Your task to perform on an android device: turn off location history Image 0: 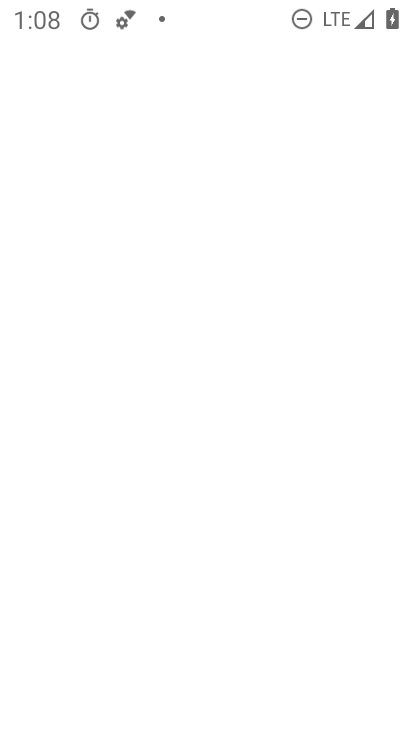
Step 0: drag from (332, 572) to (406, 467)
Your task to perform on an android device: turn off location history Image 1: 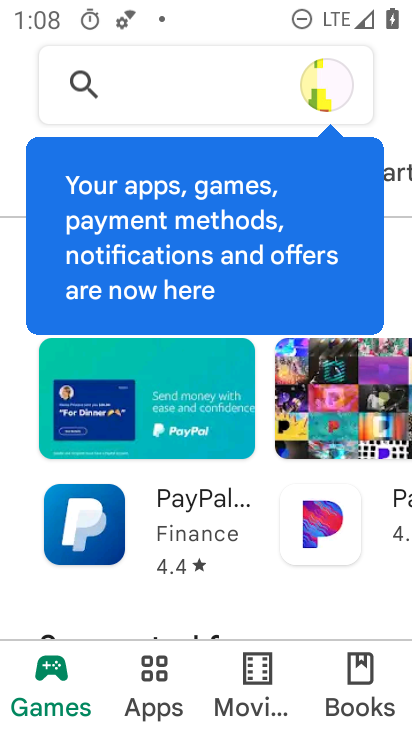
Step 1: press home button
Your task to perform on an android device: turn off location history Image 2: 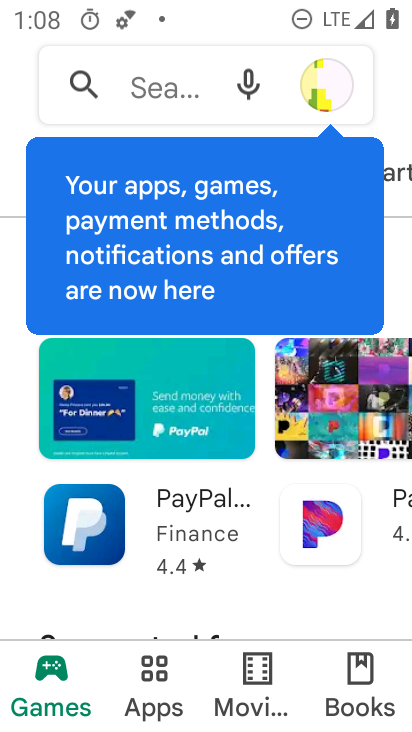
Step 2: drag from (406, 467) to (405, 506)
Your task to perform on an android device: turn off location history Image 3: 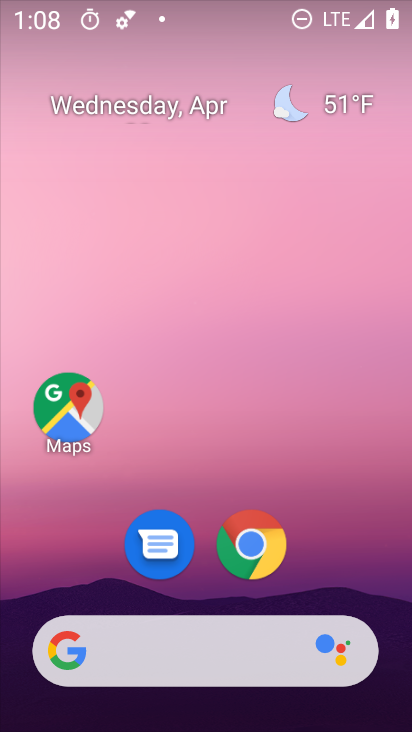
Step 3: drag from (323, 557) to (322, 114)
Your task to perform on an android device: turn off location history Image 4: 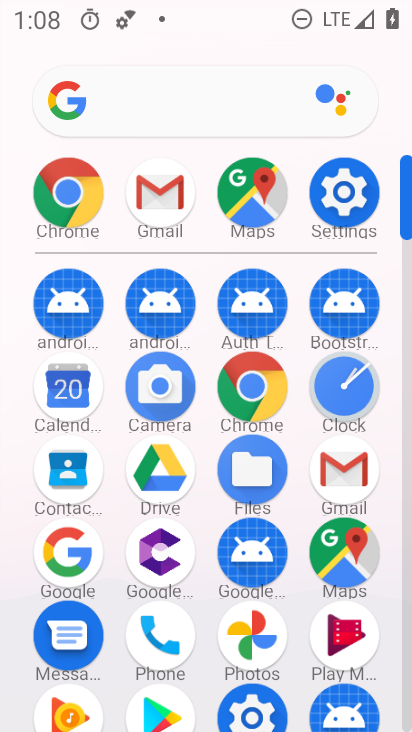
Step 4: click (330, 201)
Your task to perform on an android device: turn off location history Image 5: 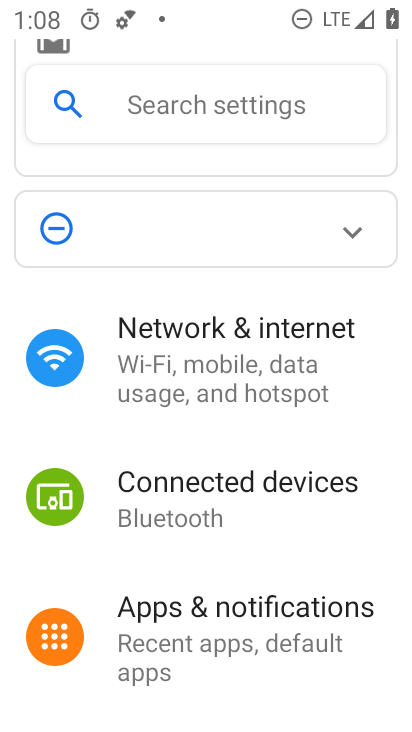
Step 5: drag from (372, 652) to (382, 500)
Your task to perform on an android device: turn off location history Image 6: 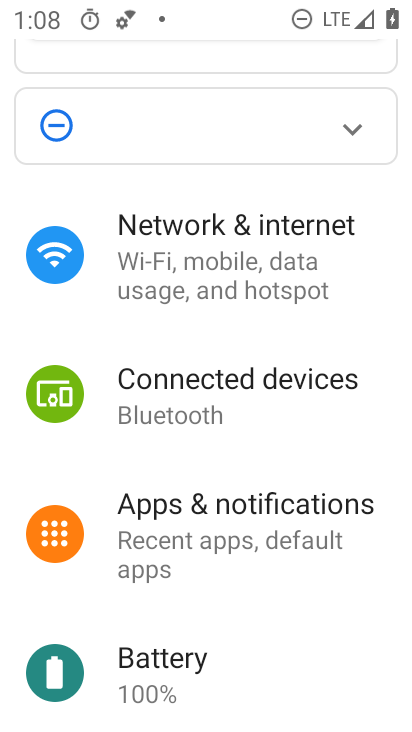
Step 6: drag from (350, 630) to (363, 426)
Your task to perform on an android device: turn off location history Image 7: 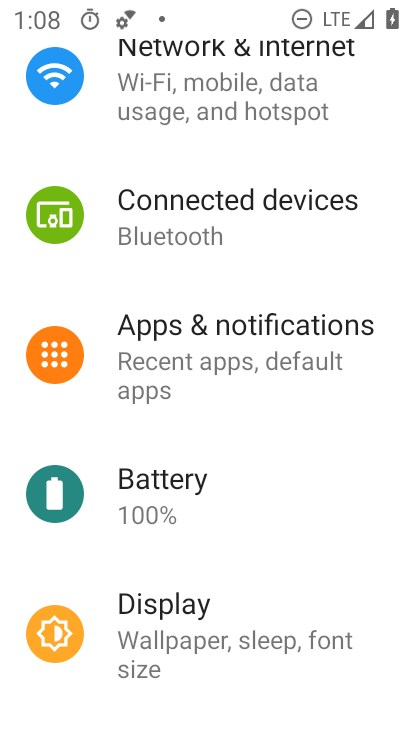
Step 7: drag from (375, 590) to (378, 466)
Your task to perform on an android device: turn off location history Image 8: 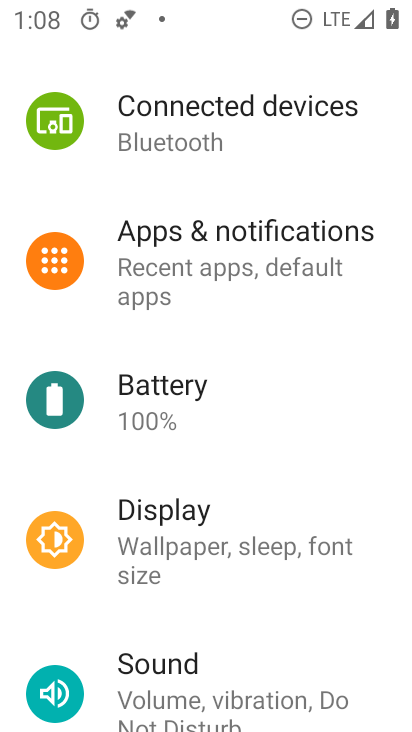
Step 8: drag from (349, 615) to (362, 479)
Your task to perform on an android device: turn off location history Image 9: 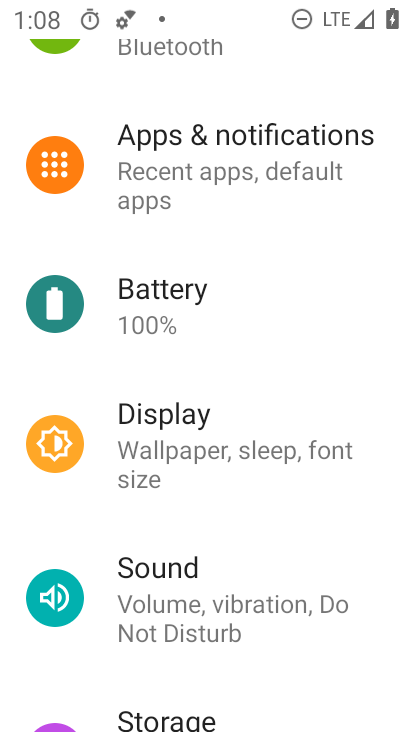
Step 9: drag from (343, 669) to (342, 515)
Your task to perform on an android device: turn off location history Image 10: 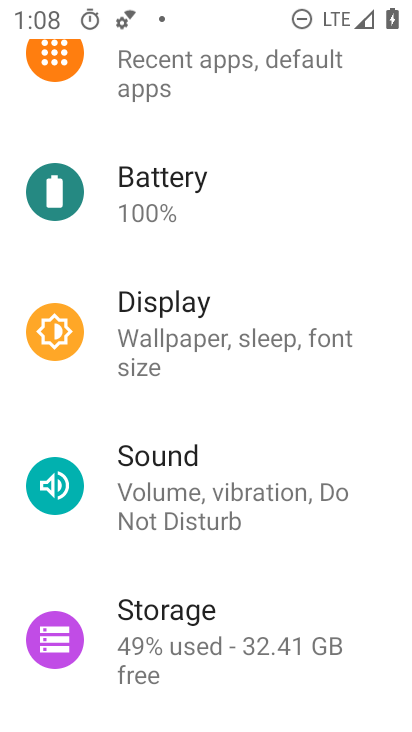
Step 10: drag from (363, 682) to (367, 540)
Your task to perform on an android device: turn off location history Image 11: 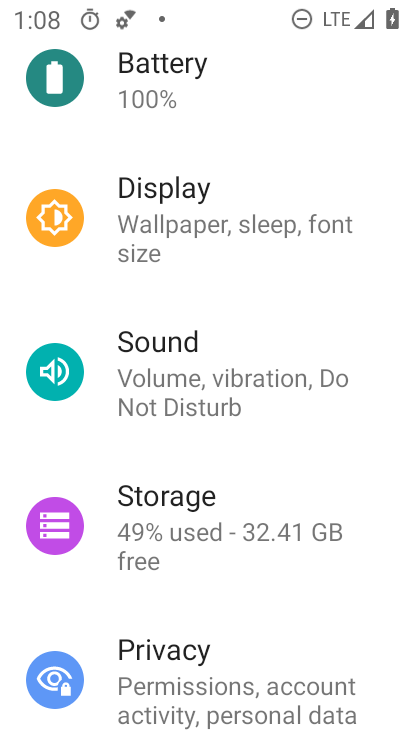
Step 11: drag from (364, 658) to (366, 501)
Your task to perform on an android device: turn off location history Image 12: 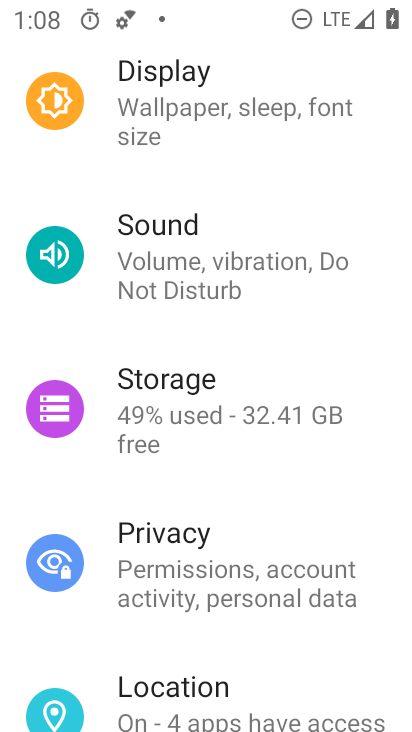
Step 12: drag from (369, 631) to (379, 487)
Your task to perform on an android device: turn off location history Image 13: 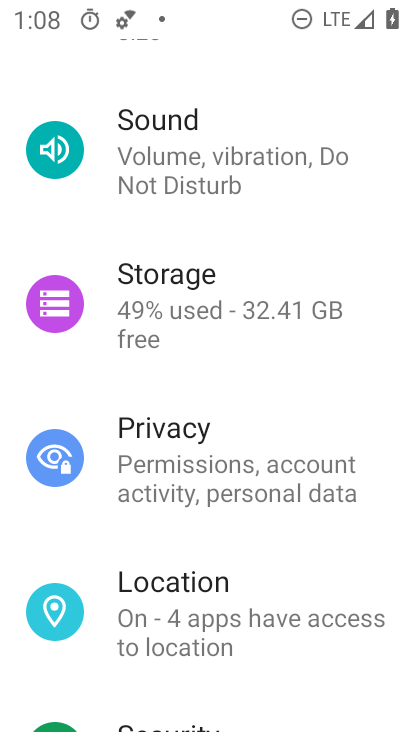
Step 13: drag from (361, 644) to (376, 502)
Your task to perform on an android device: turn off location history Image 14: 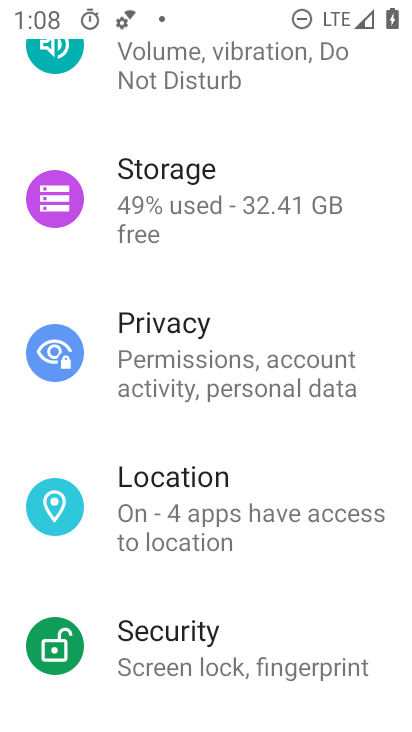
Step 14: click (272, 503)
Your task to perform on an android device: turn off location history Image 15: 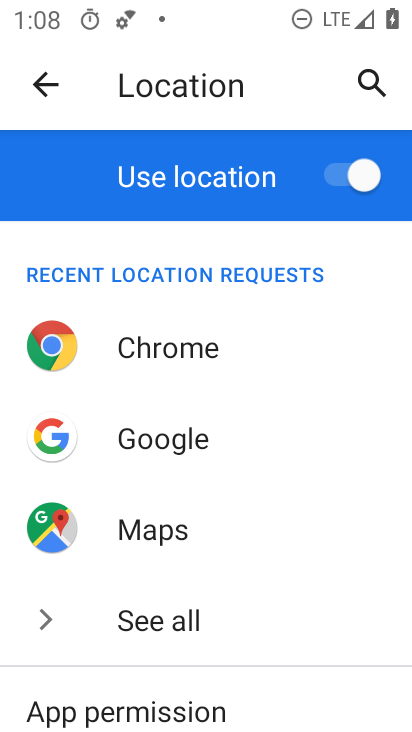
Step 15: drag from (325, 552) to (323, 377)
Your task to perform on an android device: turn off location history Image 16: 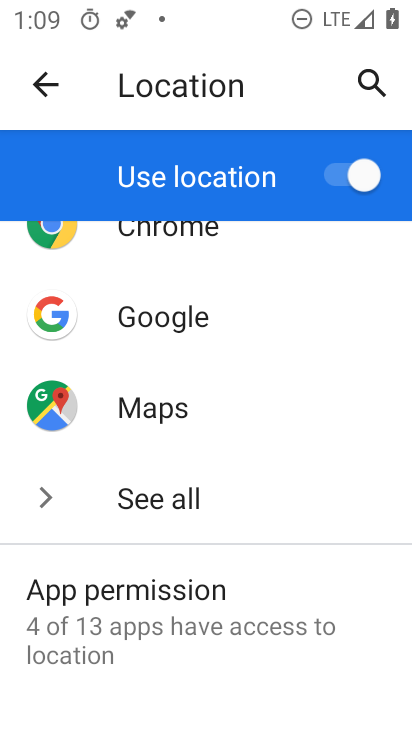
Step 16: drag from (320, 560) to (333, 403)
Your task to perform on an android device: turn off location history Image 17: 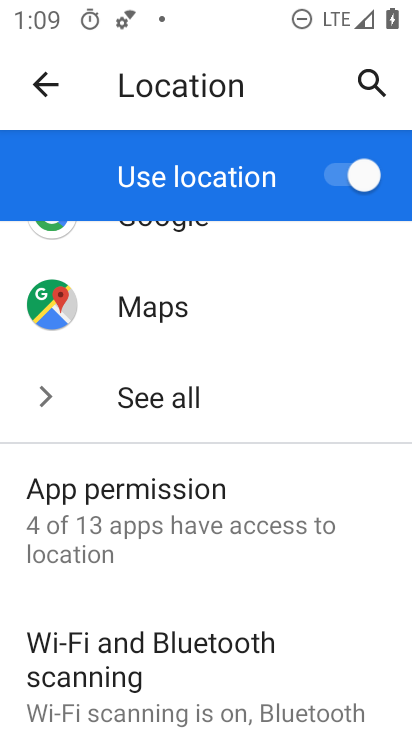
Step 17: drag from (343, 613) to (365, 435)
Your task to perform on an android device: turn off location history Image 18: 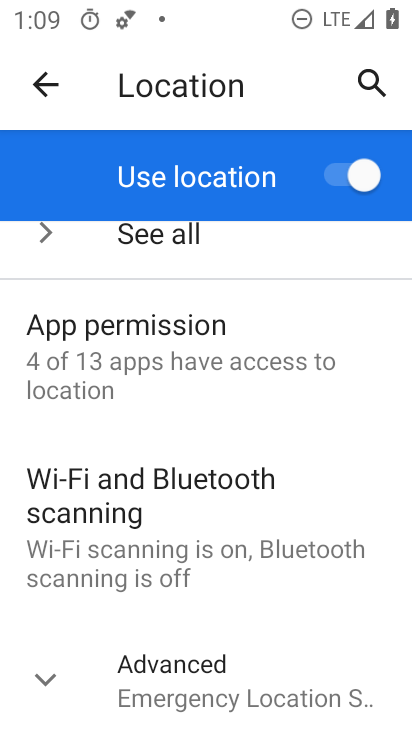
Step 18: drag from (341, 574) to (336, 442)
Your task to perform on an android device: turn off location history Image 19: 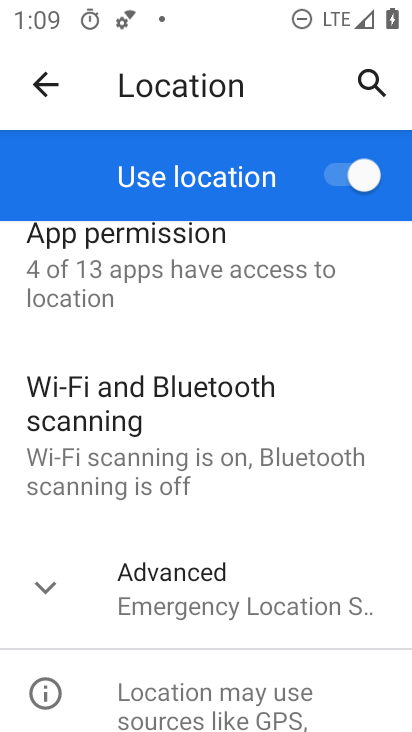
Step 19: drag from (331, 635) to (338, 428)
Your task to perform on an android device: turn off location history Image 20: 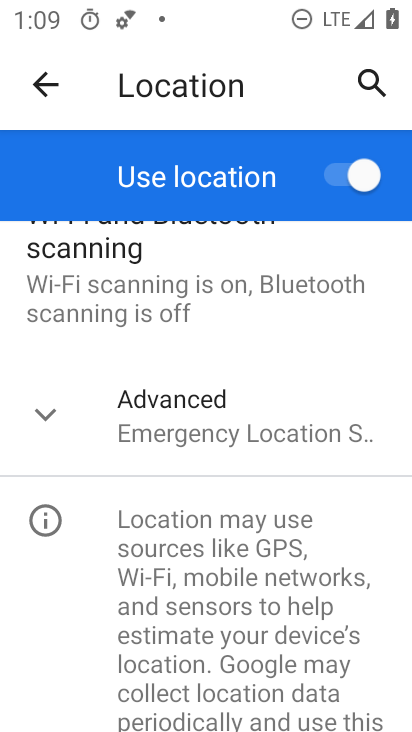
Step 20: click (210, 422)
Your task to perform on an android device: turn off location history Image 21: 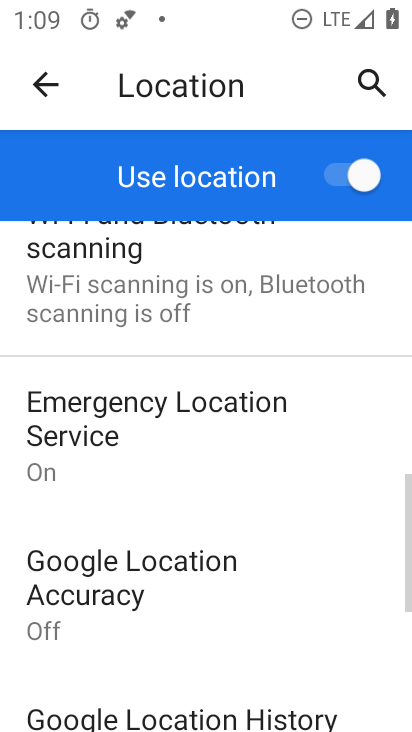
Step 21: task complete